Your task to perform on an android device: turn on wifi Image 0: 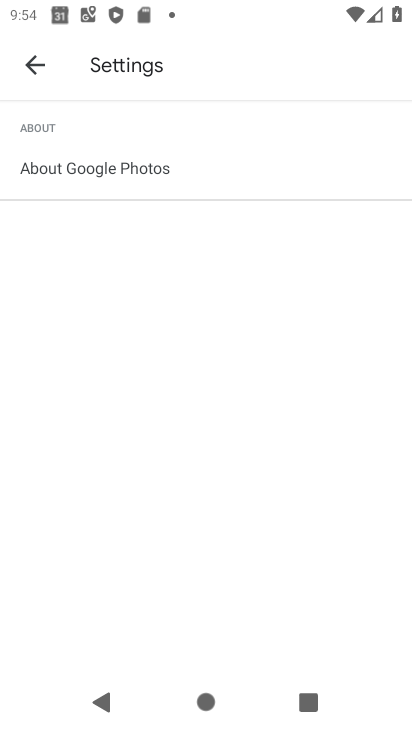
Step 0: press home button
Your task to perform on an android device: turn on wifi Image 1: 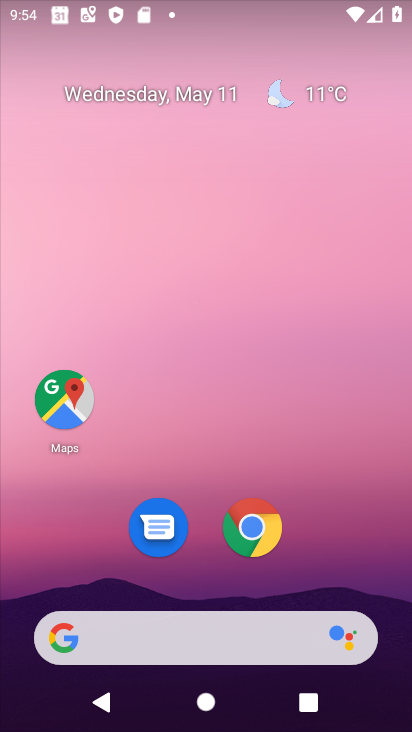
Step 1: drag from (327, 536) to (340, 89)
Your task to perform on an android device: turn on wifi Image 2: 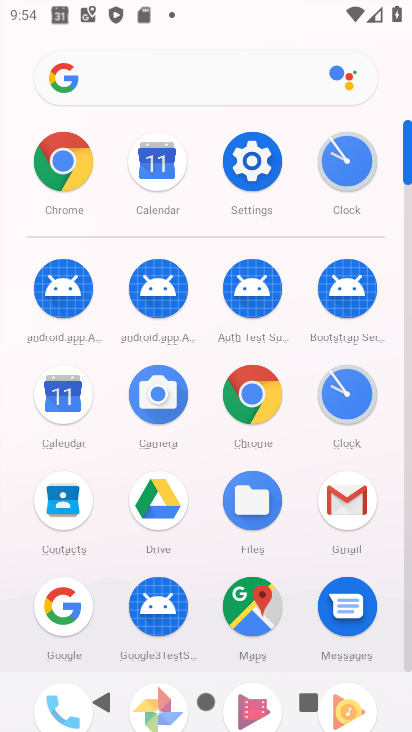
Step 2: click (262, 163)
Your task to perform on an android device: turn on wifi Image 3: 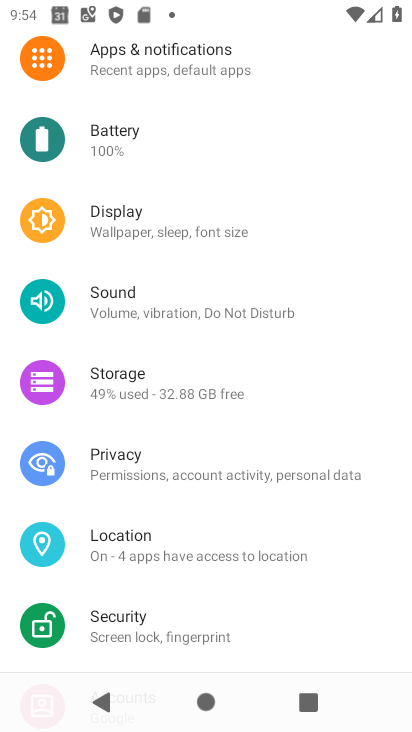
Step 3: drag from (259, 159) to (247, 569)
Your task to perform on an android device: turn on wifi Image 4: 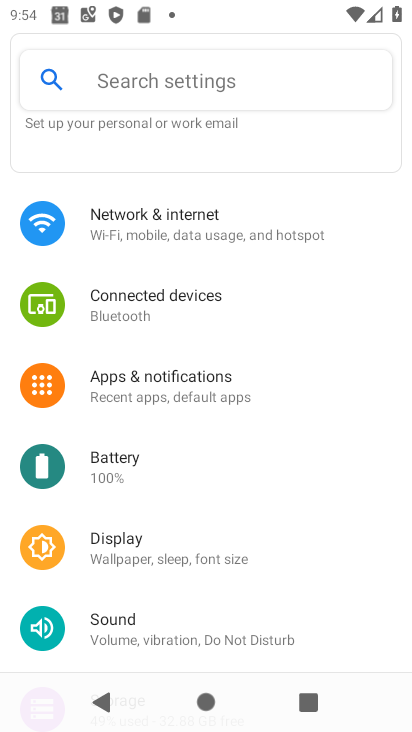
Step 4: drag from (259, 259) to (258, 629)
Your task to perform on an android device: turn on wifi Image 5: 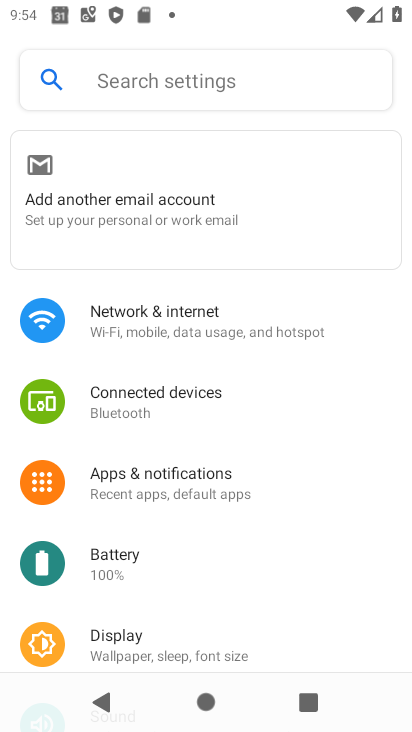
Step 5: click (171, 321)
Your task to perform on an android device: turn on wifi Image 6: 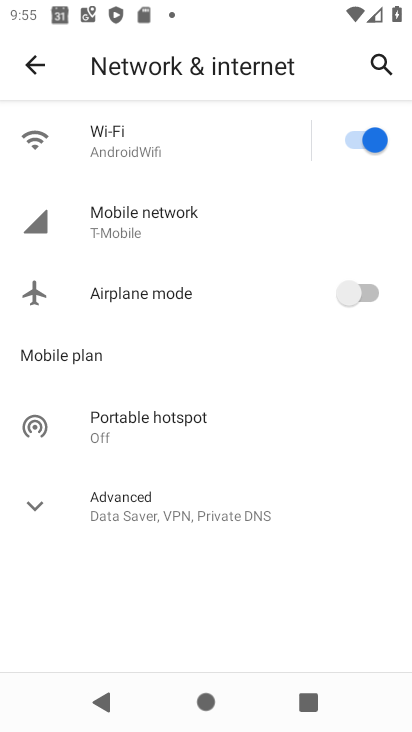
Step 6: task complete